Your task to perform on an android device: toggle wifi Image 0: 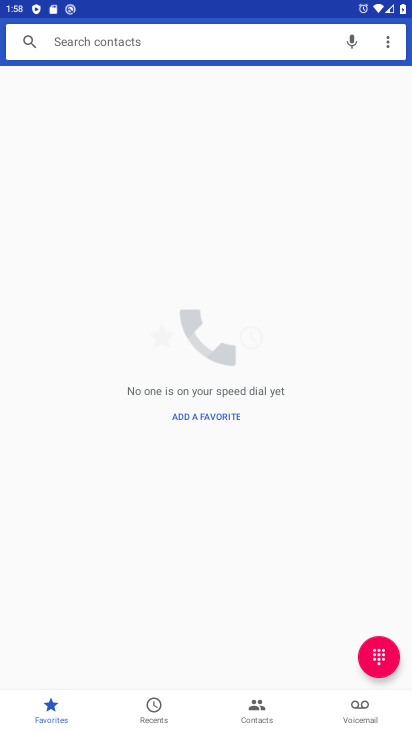
Step 0: drag from (271, 629) to (258, 439)
Your task to perform on an android device: toggle wifi Image 1: 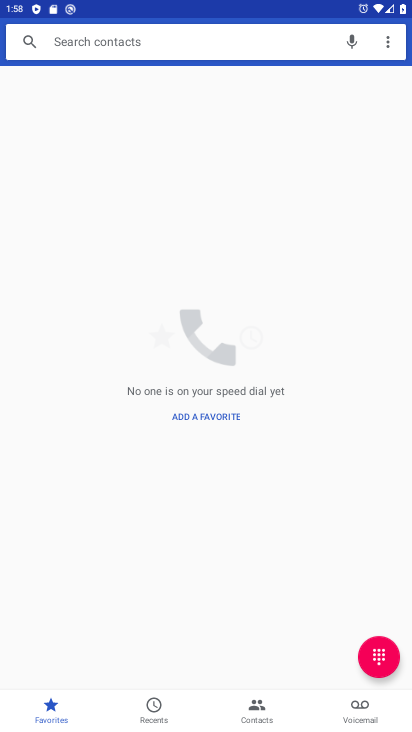
Step 1: press home button
Your task to perform on an android device: toggle wifi Image 2: 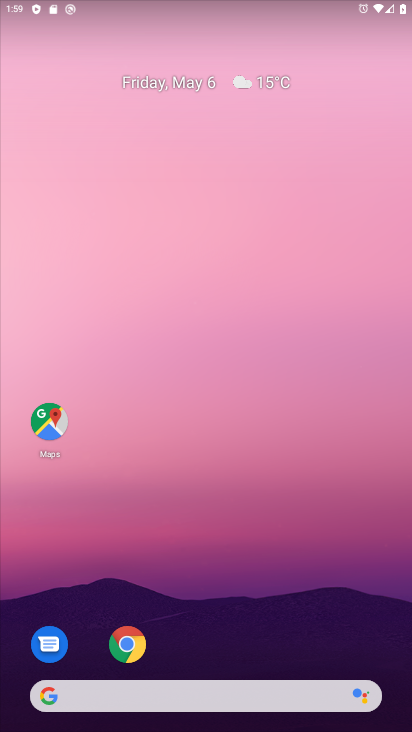
Step 2: drag from (225, 625) to (172, 158)
Your task to perform on an android device: toggle wifi Image 3: 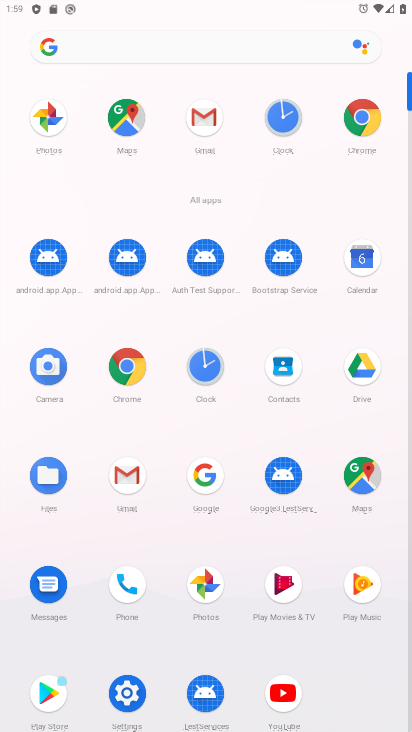
Step 3: click (135, 694)
Your task to perform on an android device: toggle wifi Image 4: 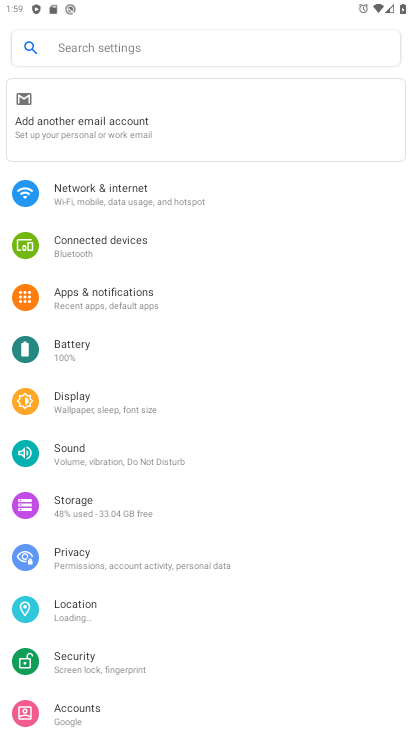
Step 4: click (240, 202)
Your task to perform on an android device: toggle wifi Image 5: 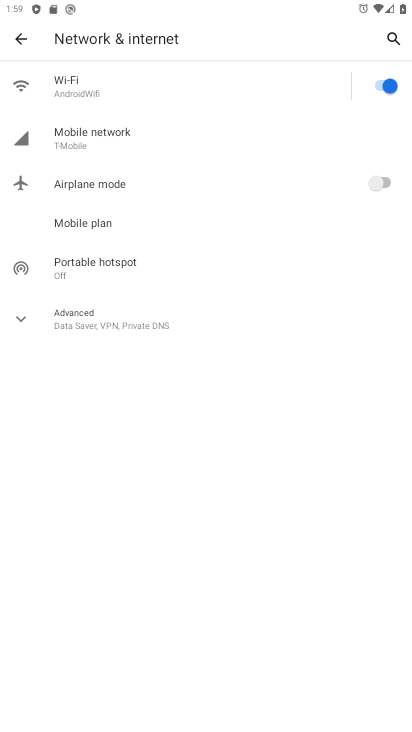
Step 5: click (390, 86)
Your task to perform on an android device: toggle wifi Image 6: 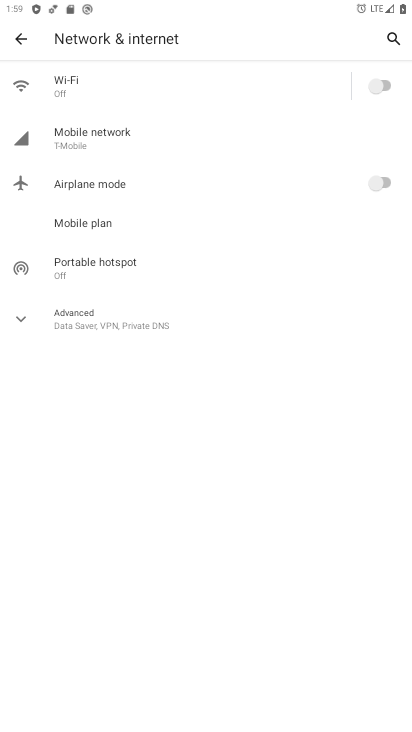
Step 6: task complete